Your task to perform on an android device: What's the latest news in space technology? Image 0: 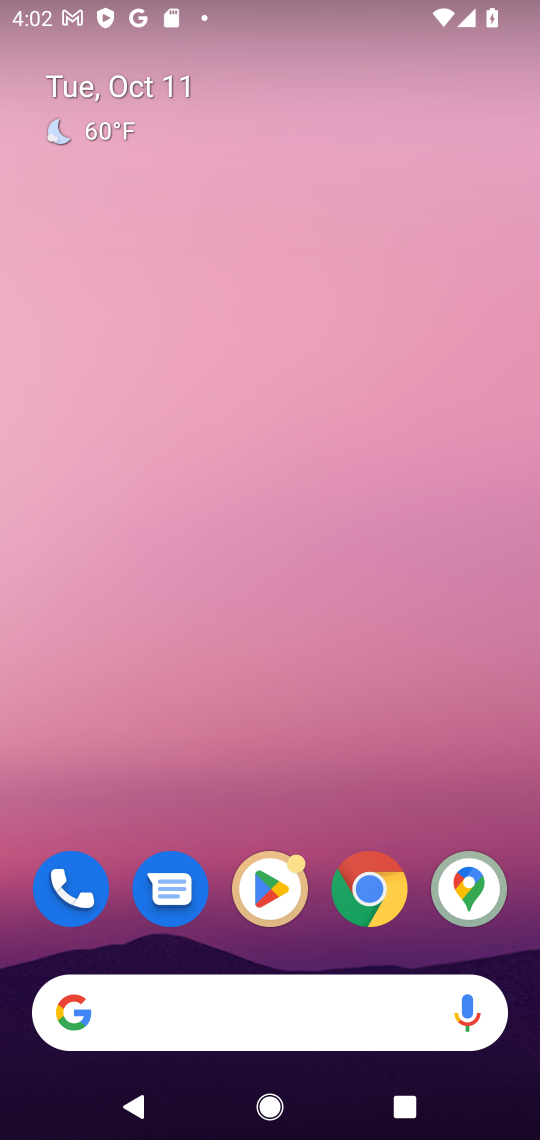
Step 0: drag from (265, 963) to (300, 329)
Your task to perform on an android device: What's the latest news in space technology? Image 1: 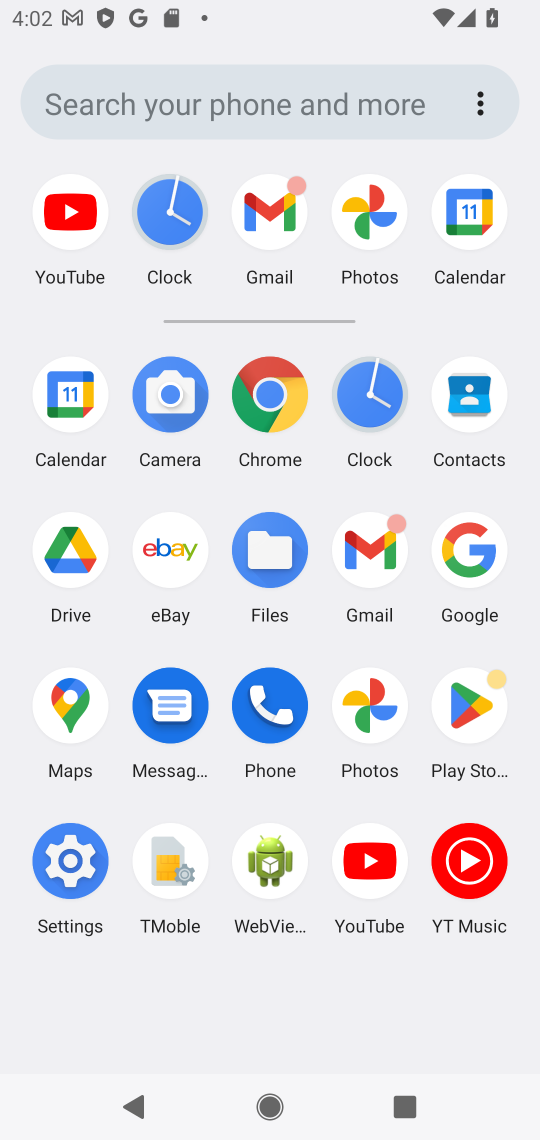
Step 1: click (456, 545)
Your task to perform on an android device: What's the latest news in space technology? Image 2: 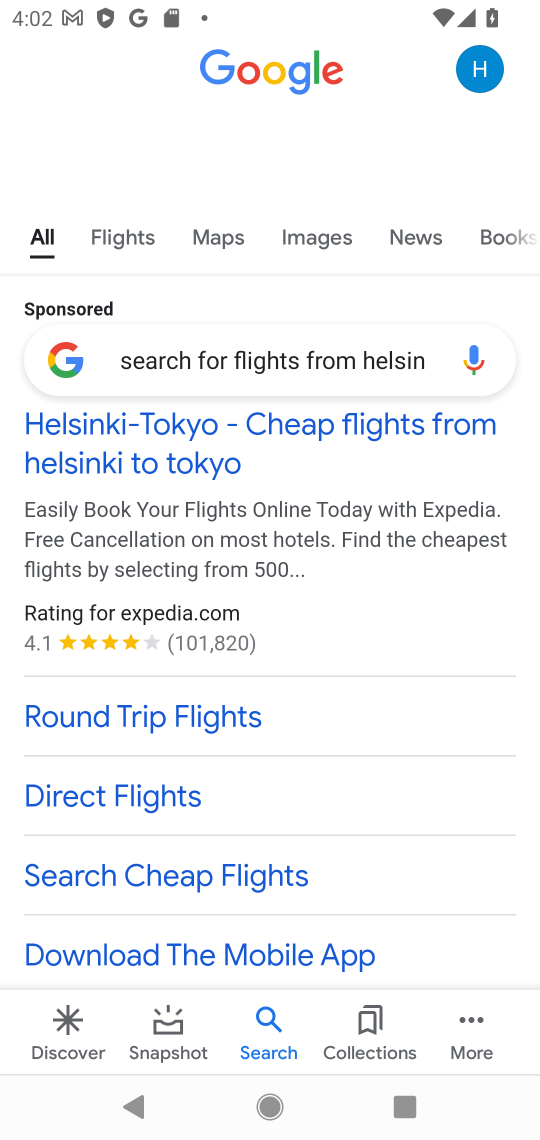
Step 2: click (311, 354)
Your task to perform on an android device: What's the latest news in space technology? Image 3: 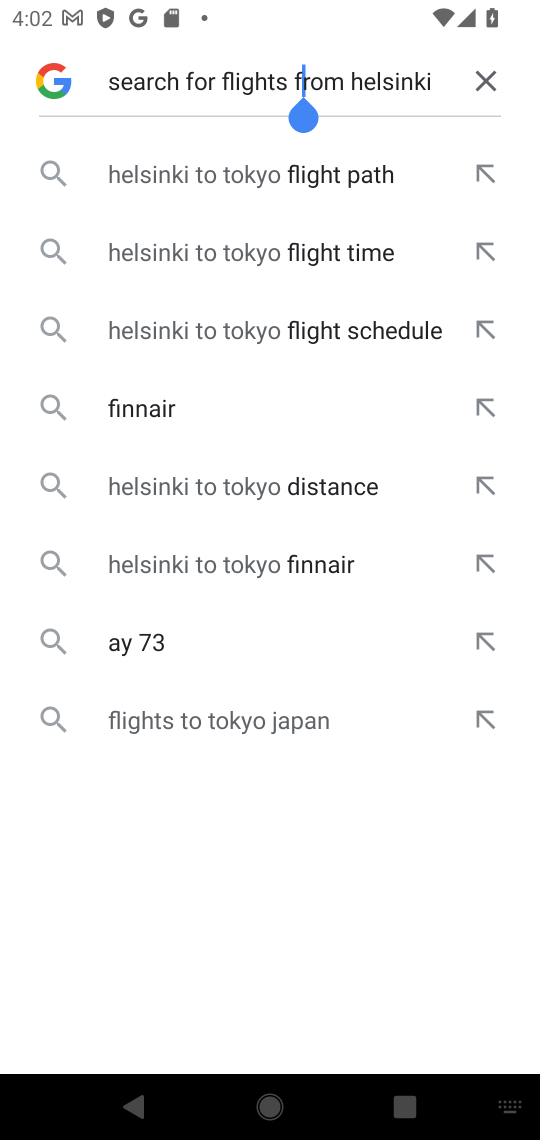
Step 3: click (478, 76)
Your task to perform on an android device: What's the latest news in space technology? Image 4: 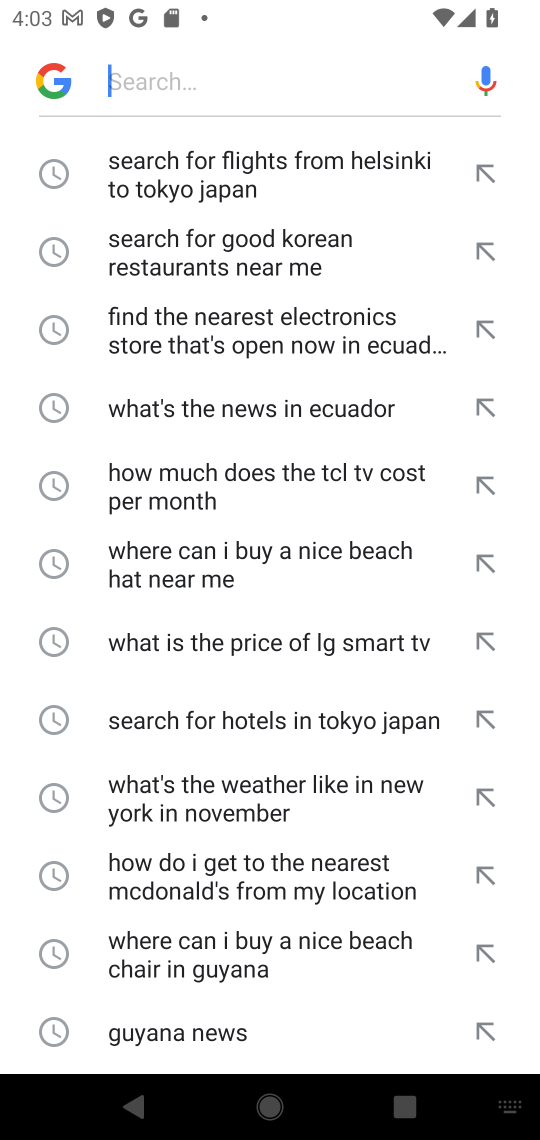
Step 4: click (269, 78)
Your task to perform on an android device: What's the latest news in space technology? Image 5: 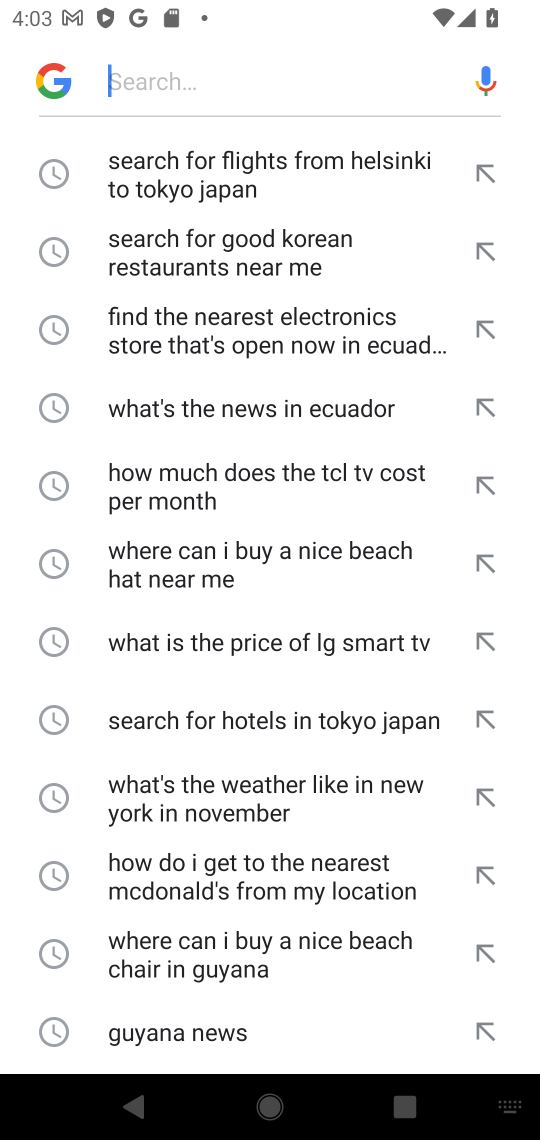
Step 5: type "What's the latest news in space technology? "
Your task to perform on an android device: What's the latest news in space technology? Image 6: 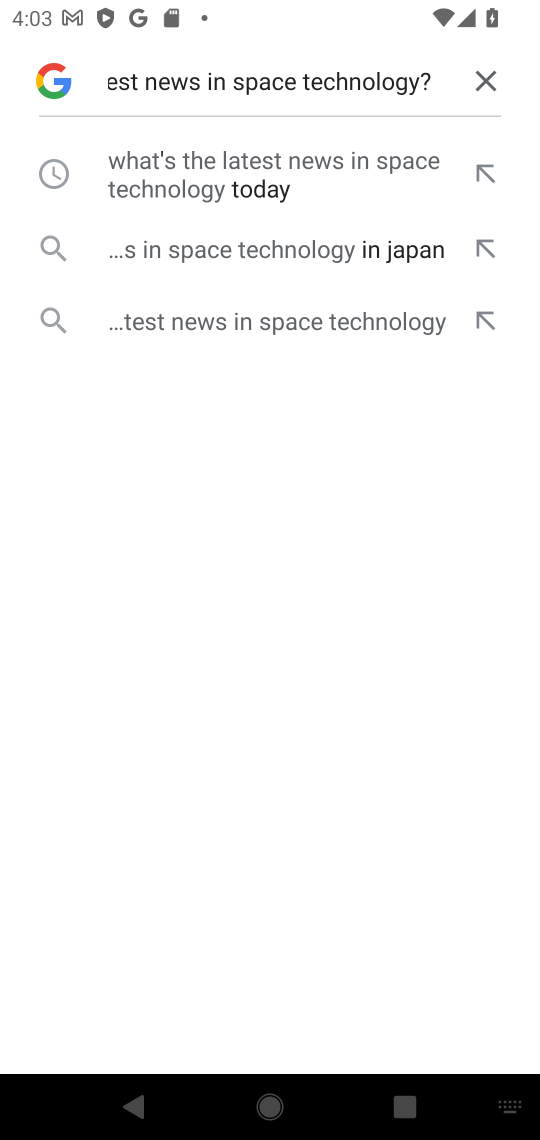
Step 6: click (232, 179)
Your task to perform on an android device: What's the latest news in space technology? Image 7: 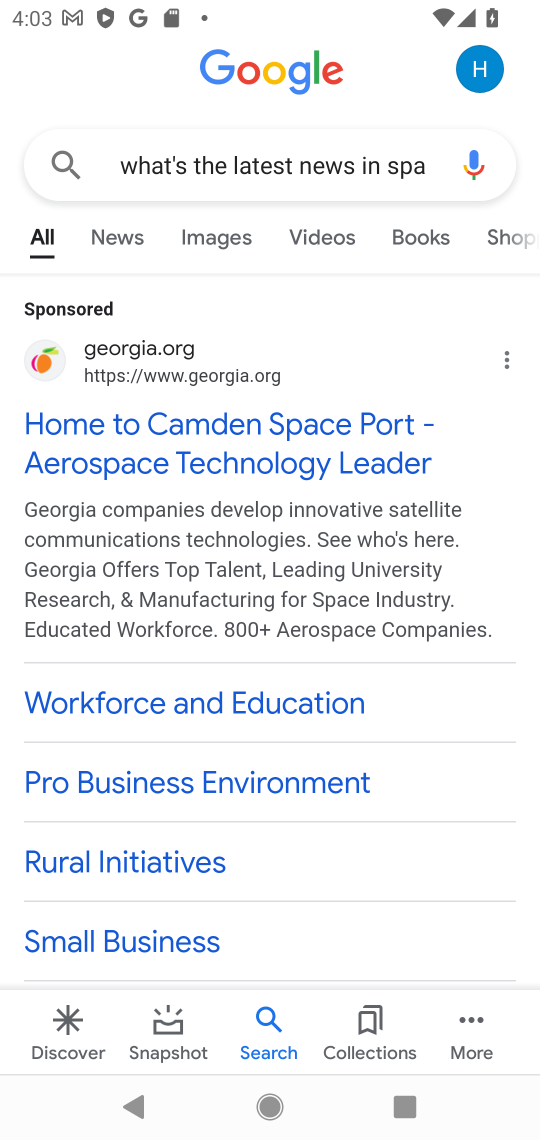
Step 7: click (235, 449)
Your task to perform on an android device: What's the latest news in space technology? Image 8: 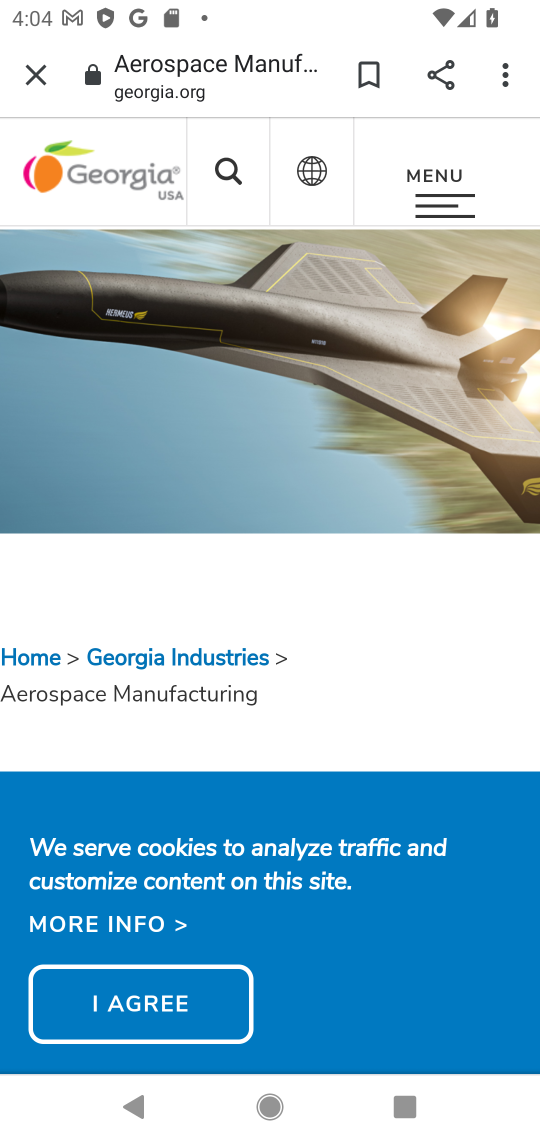
Step 8: task complete